Your task to perform on an android device: Open the Play Movies app and select the watchlist tab. Image 0: 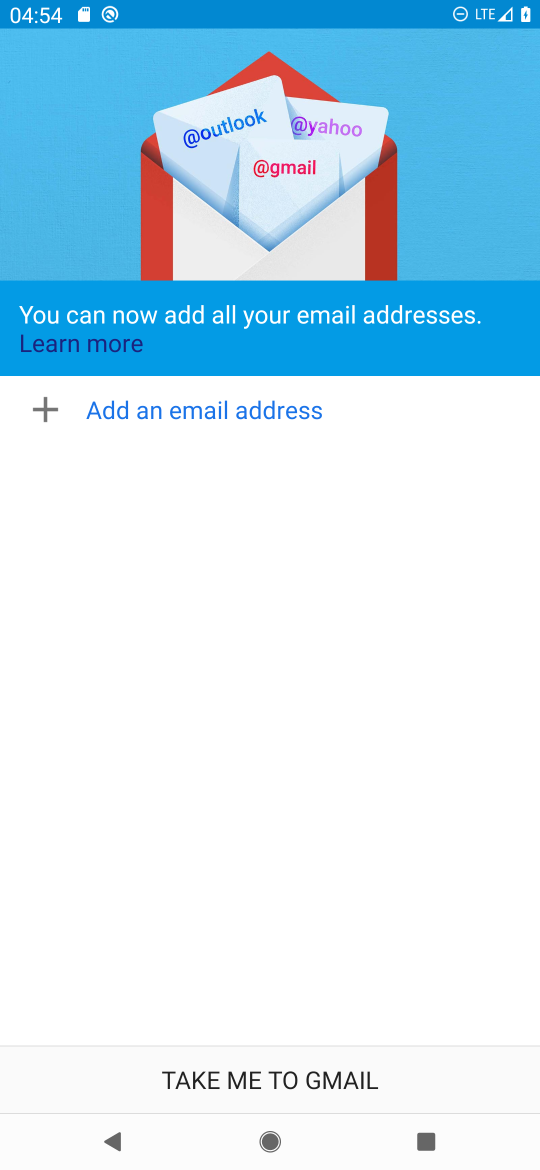
Step 0: press home button
Your task to perform on an android device: Open the Play Movies app and select the watchlist tab. Image 1: 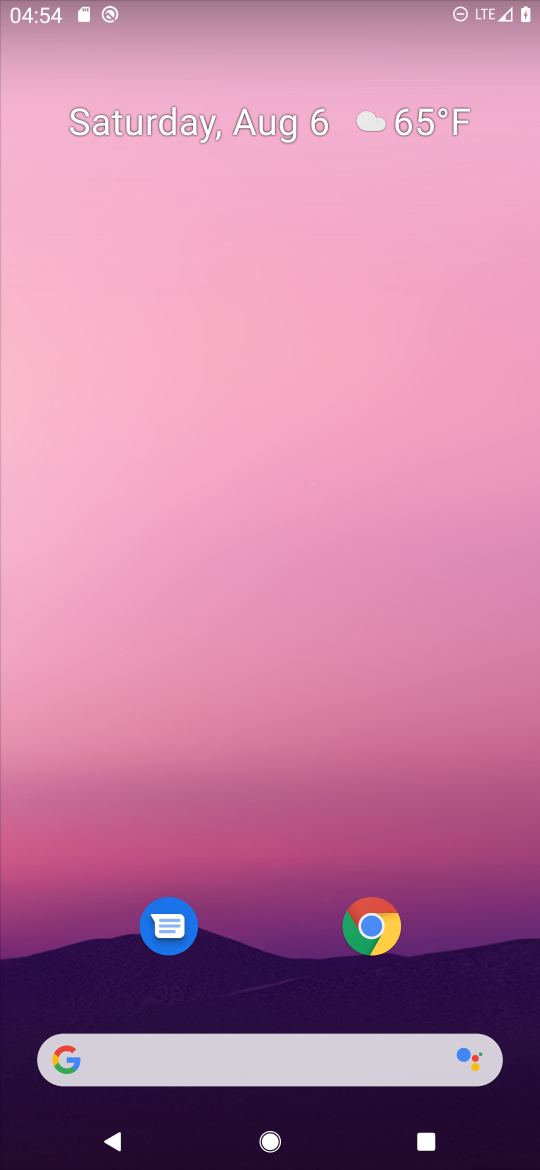
Step 1: drag from (244, 865) to (244, 297)
Your task to perform on an android device: Open the Play Movies app and select the watchlist tab. Image 2: 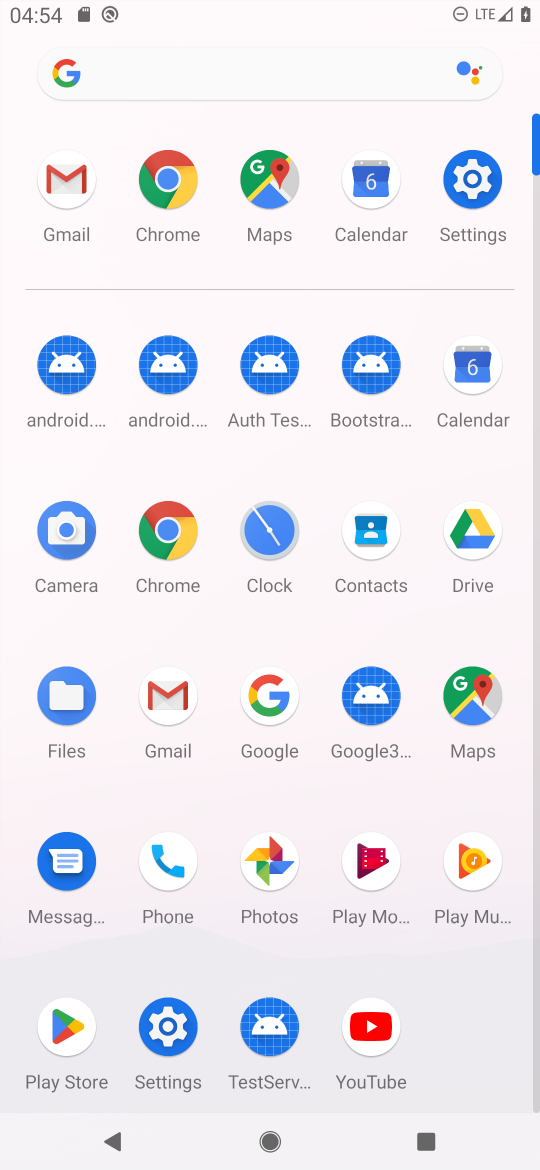
Step 2: click (377, 850)
Your task to perform on an android device: Open the Play Movies app and select the watchlist tab. Image 3: 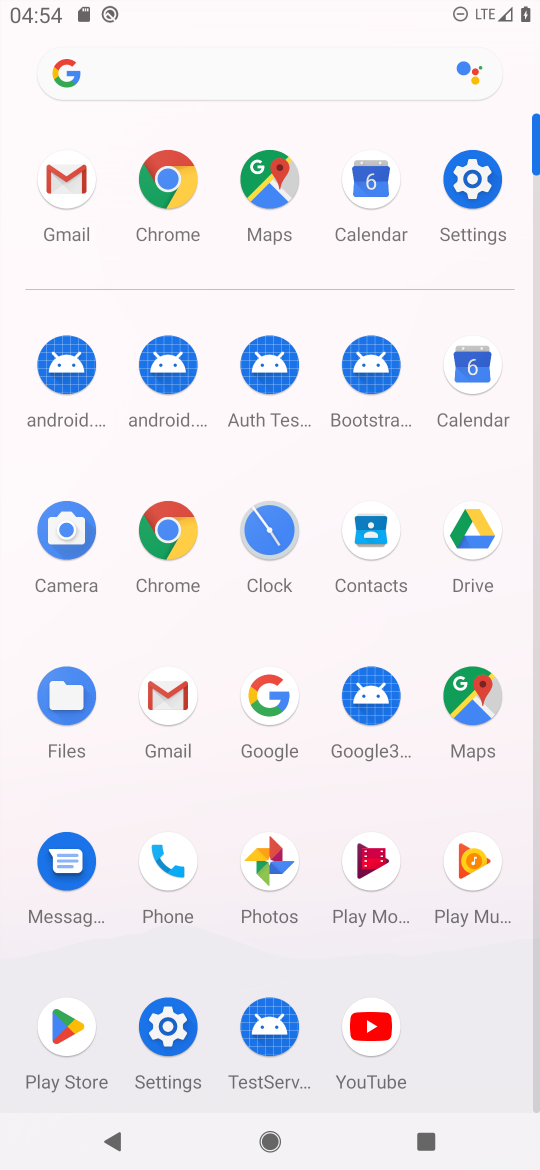
Step 3: click (355, 866)
Your task to perform on an android device: Open the Play Movies app and select the watchlist tab. Image 4: 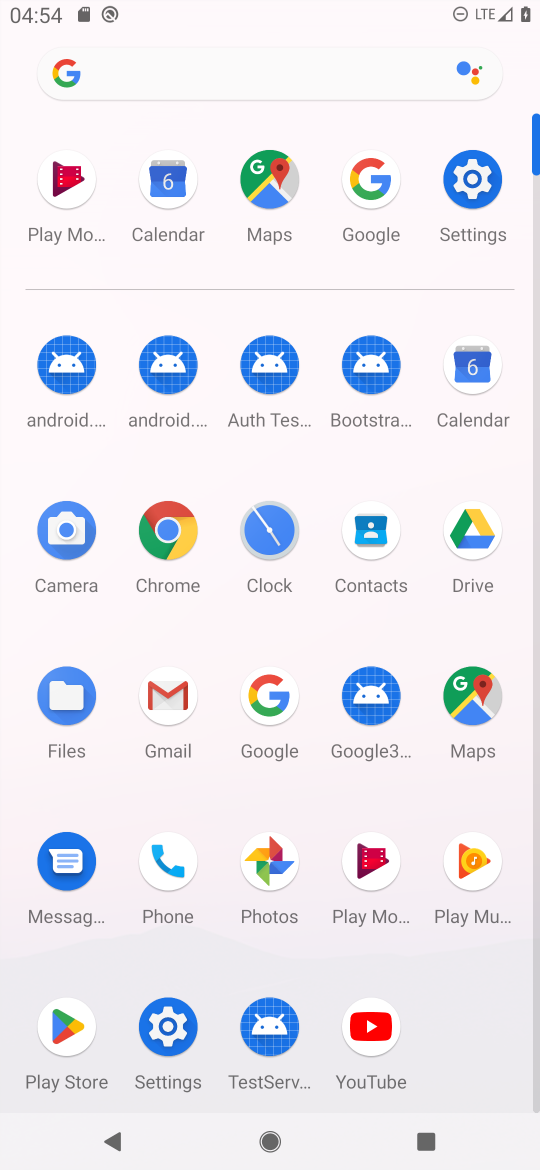
Step 4: click (345, 844)
Your task to perform on an android device: Open the Play Movies app and select the watchlist tab. Image 5: 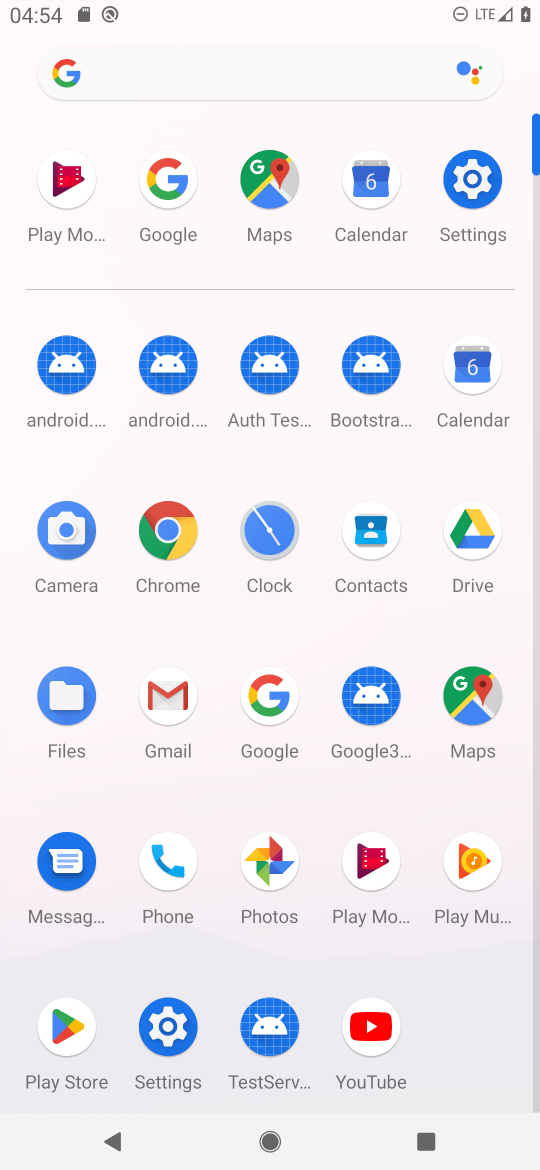
Step 5: click (370, 893)
Your task to perform on an android device: Open the Play Movies app and select the watchlist tab. Image 6: 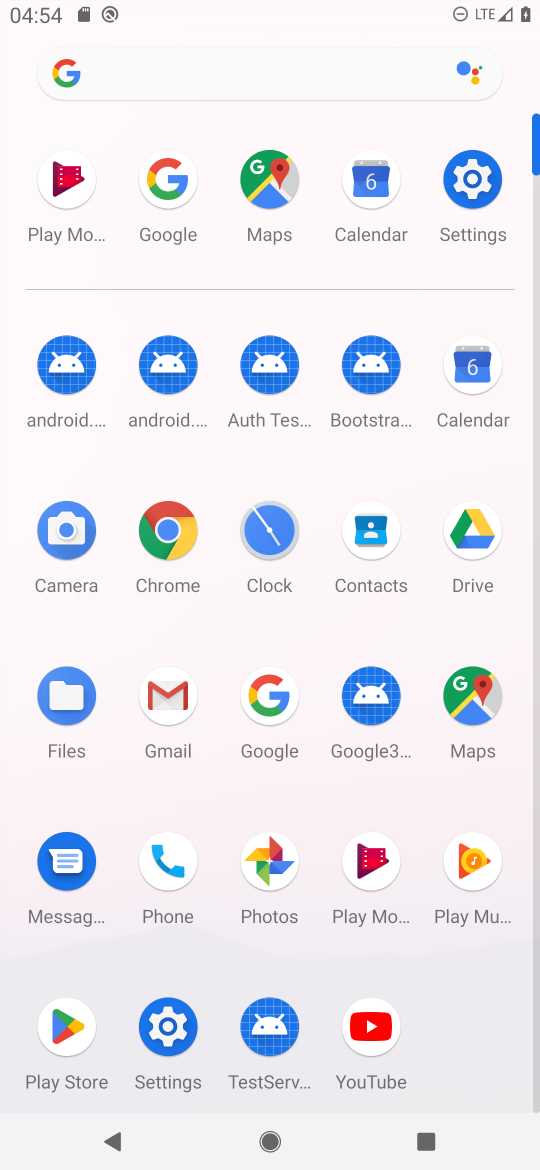
Step 6: click (370, 863)
Your task to perform on an android device: Open the Play Movies app and select the watchlist tab. Image 7: 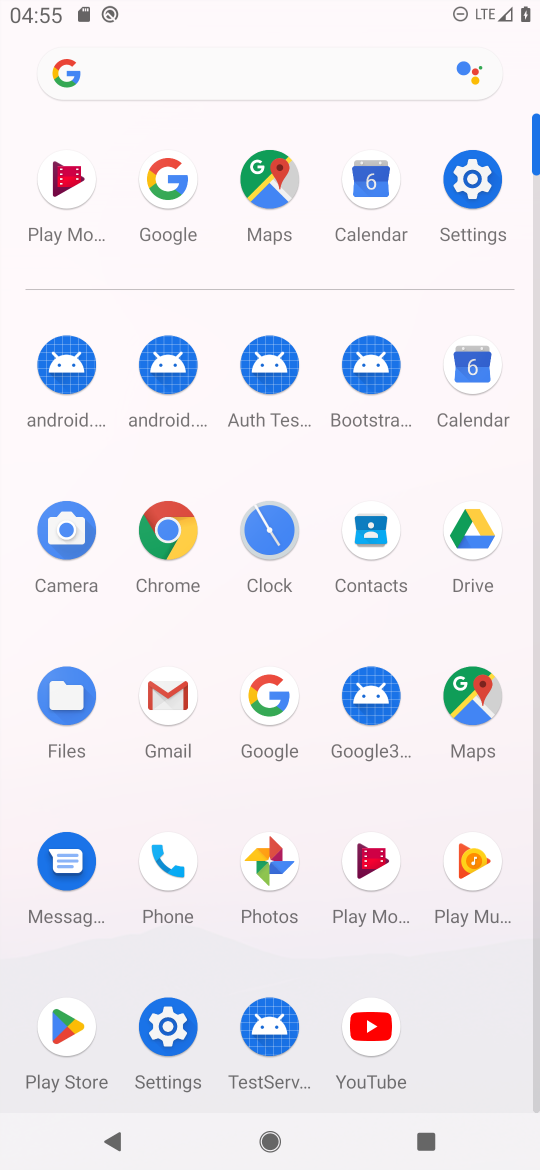
Step 7: click (354, 890)
Your task to perform on an android device: Open the Play Movies app and select the watchlist tab. Image 8: 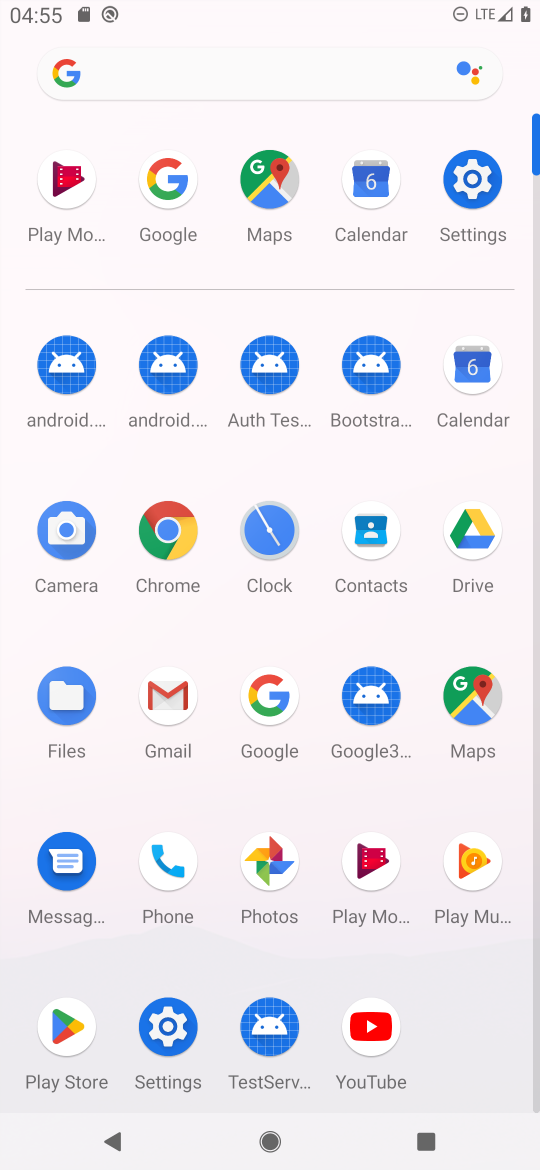
Step 8: task complete